Your task to perform on an android device: check battery use Image 0: 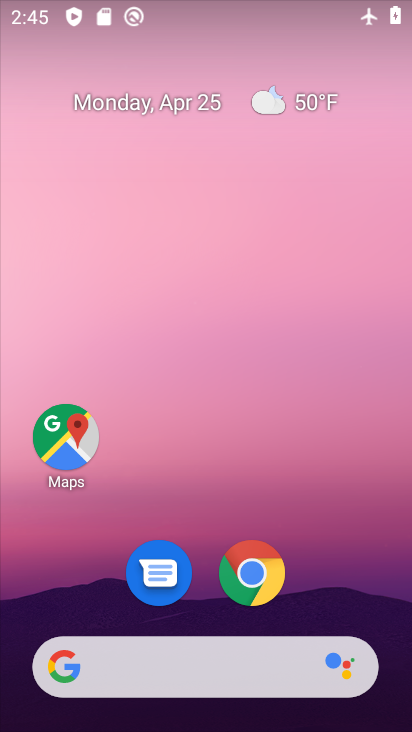
Step 0: drag from (351, 499) to (402, 85)
Your task to perform on an android device: check battery use Image 1: 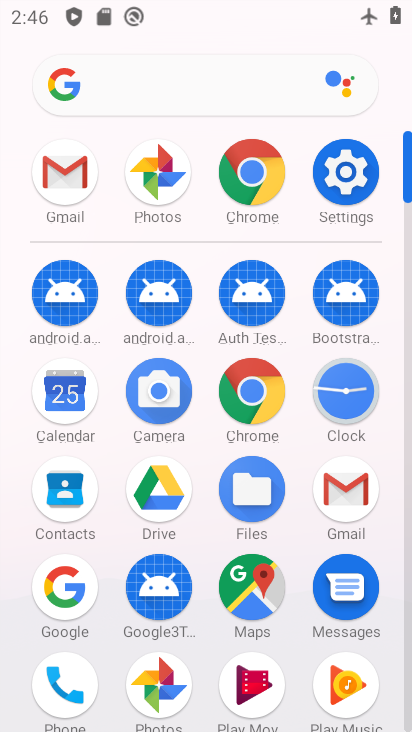
Step 1: click (335, 177)
Your task to perform on an android device: check battery use Image 2: 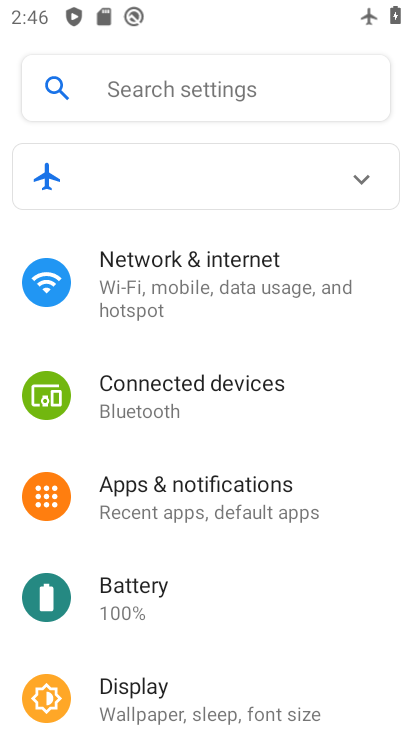
Step 2: click (168, 290)
Your task to perform on an android device: check battery use Image 3: 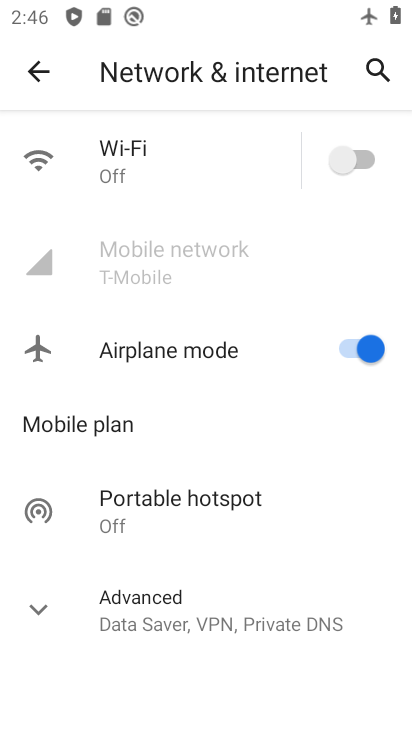
Step 3: click (20, 62)
Your task to perform on an android device: check battery use Image 4: 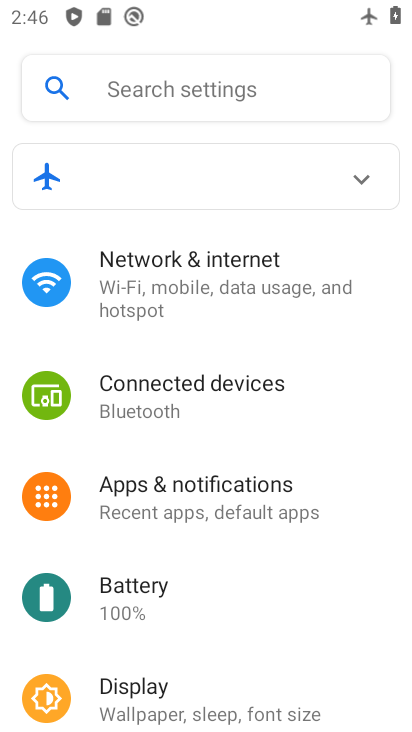
Step 4: drag from (190, 573) to (256, 97)
Your task to perform on an android device: check battery use Image 5: 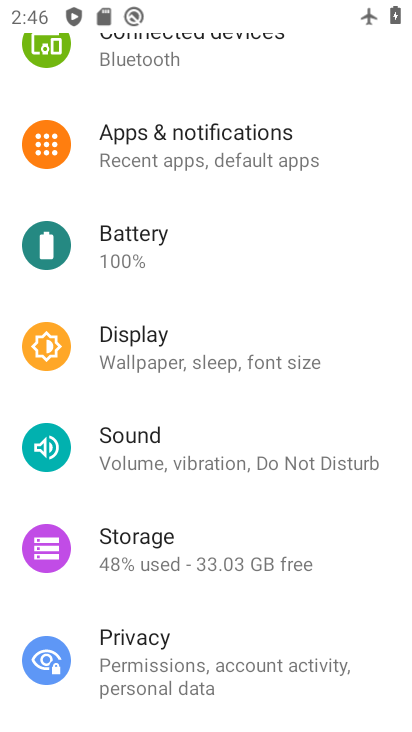
Step 5: click (130, 236)
Your task to perform on an android device: check battery use Image 6: 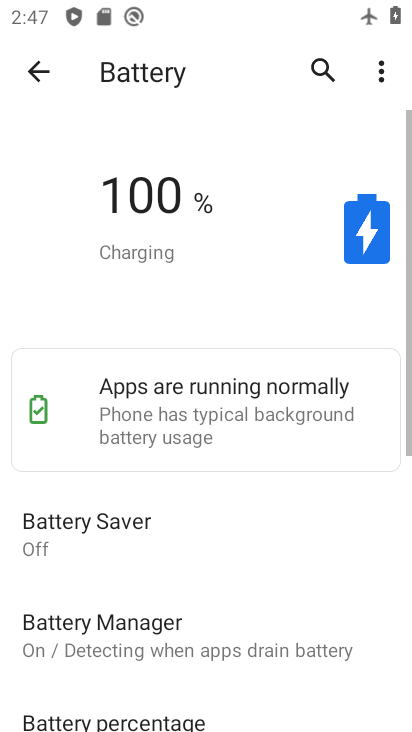
Step 6: task complete